Your task to perform on an android device: Go to network settings Image 0: 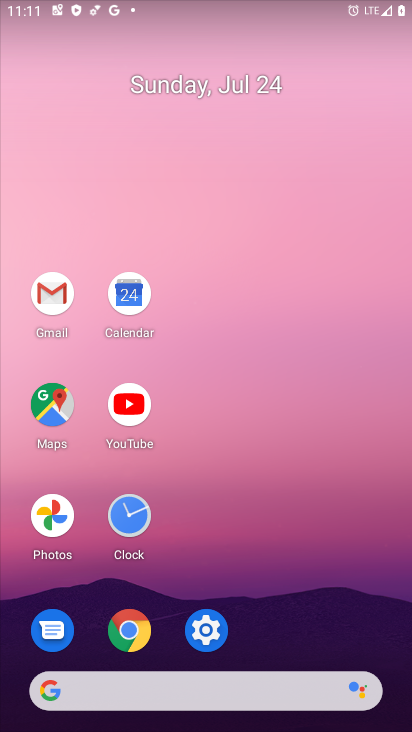
Step 0: click (207, 632)
Your task to perform on an android device: Go to network settings Image 1: 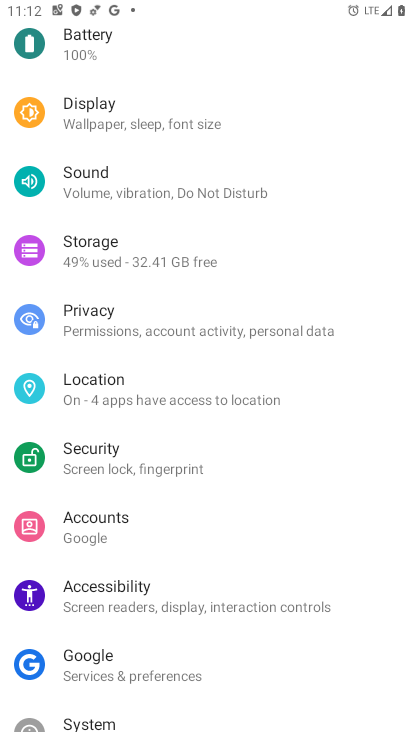
Step 1: drag from (240, 143) to (159, 533)
Your task to perform on an android device: Go to network settings Image 2: 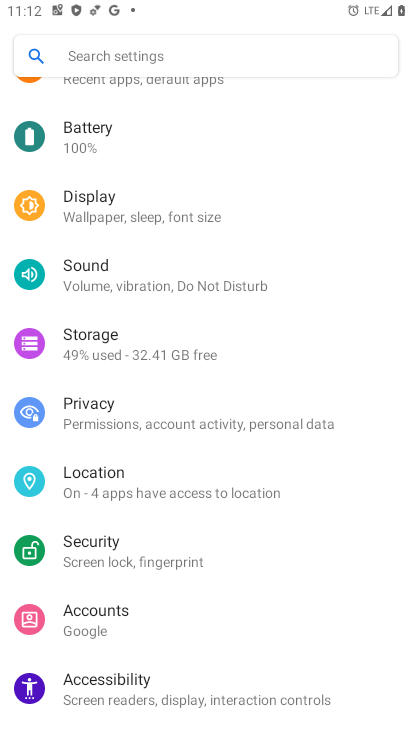
Step 2: drag from (168, 126) to (174, 566)
Your task to perform on an android device: Go to network settings Image 3: 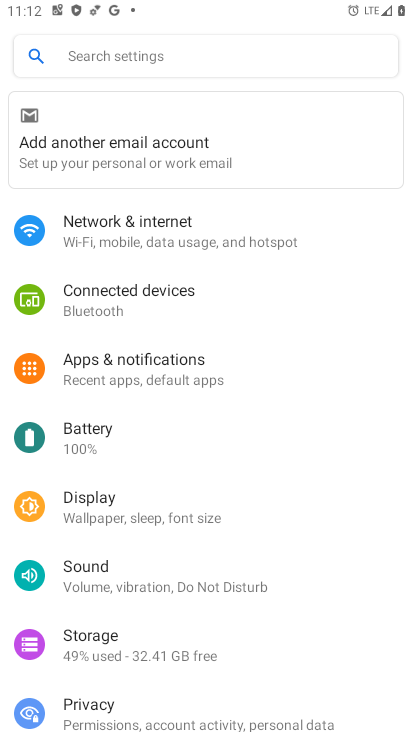
Step 3: click (132, 219)
Your task to perform on an android device: Go to network settings Image 4: 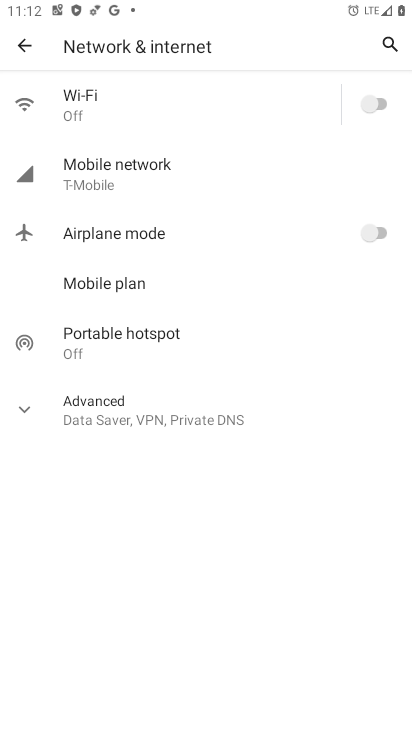
Step 4: task complete